Your task to perform on an android device: turn notification dots on Image 0: 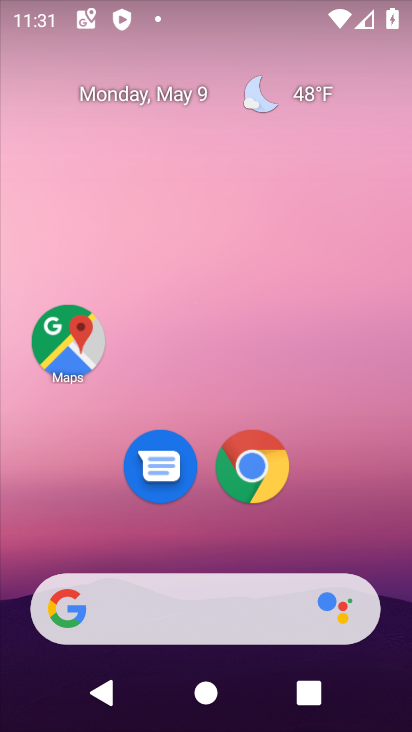
Step 0: drag from (396, 625) to (366, 24)
Your task to perform on an android device: turn notification dots on Image 1: 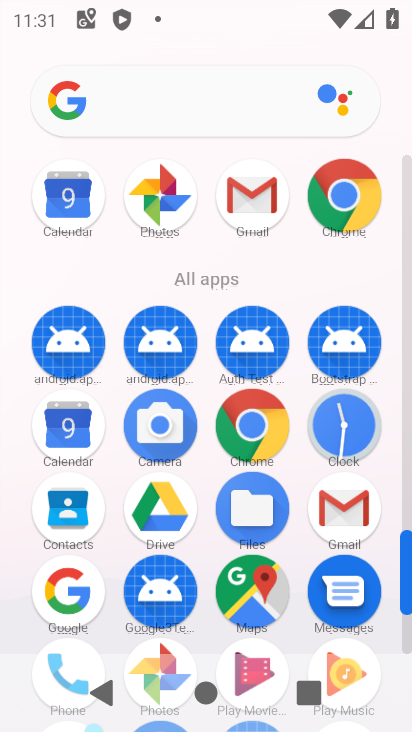
Step 1: click (402, 640)
Your task to perform on an android device: turn notification dots on Image 2: 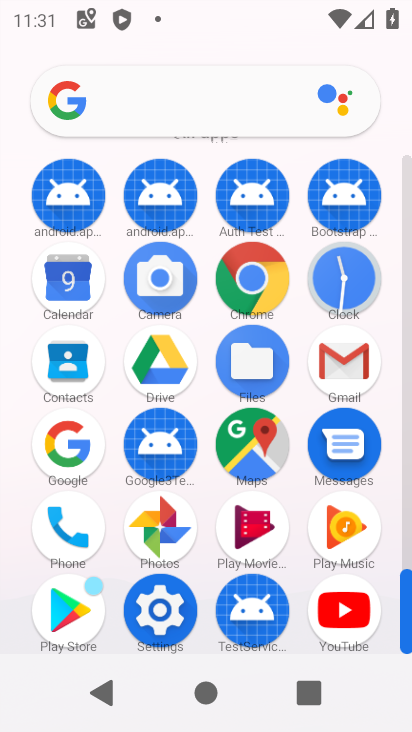
Step 2: click (160, 609)
Your task to perform on an android device: turn notification dots on Image 3: 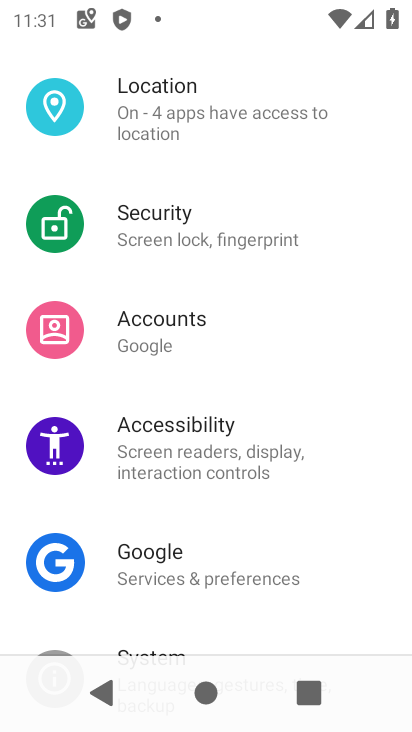
Step 3: drag from (377, 122) to (317, 525)
Your task to perform on an android device: turn notification dots on Image 4: 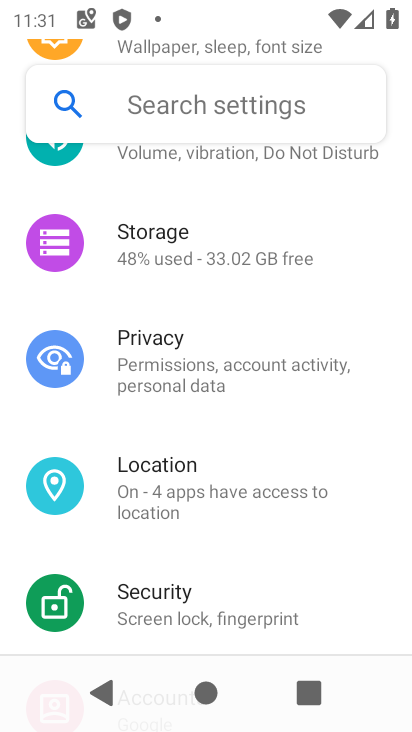
Step 4: drag from (359, 203) to (334, 515)
Your task to perform on an android device: turn notification dots on Image 5: 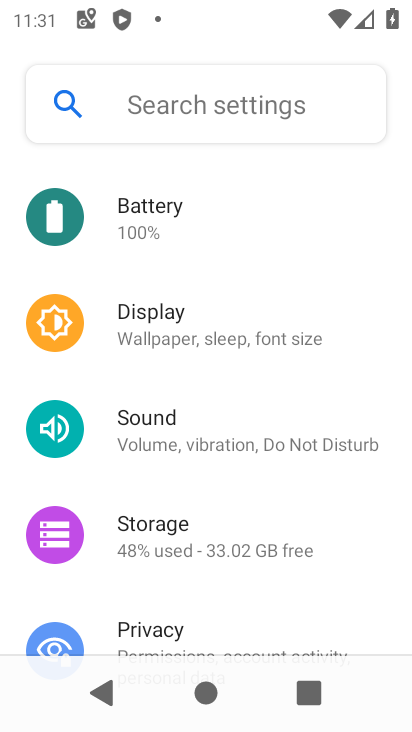
Step 5: drag from (349, 209) to (351, 572)
Your task to perform on an android device: turn notification dots on Image 6: 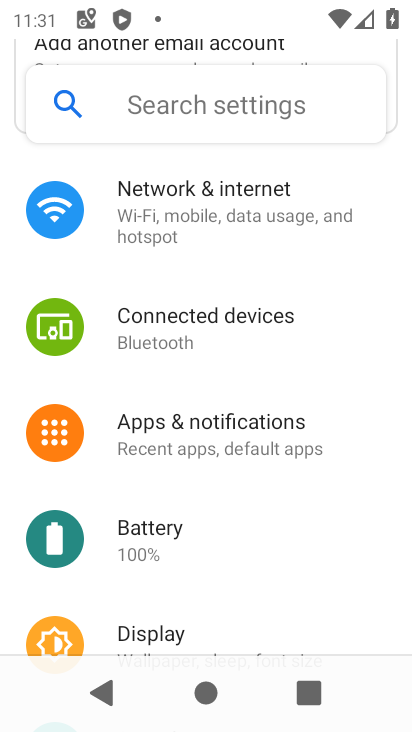
Step 6: click (178, 425)
Your task to perform on an android device: turn notification dots on Image 7: 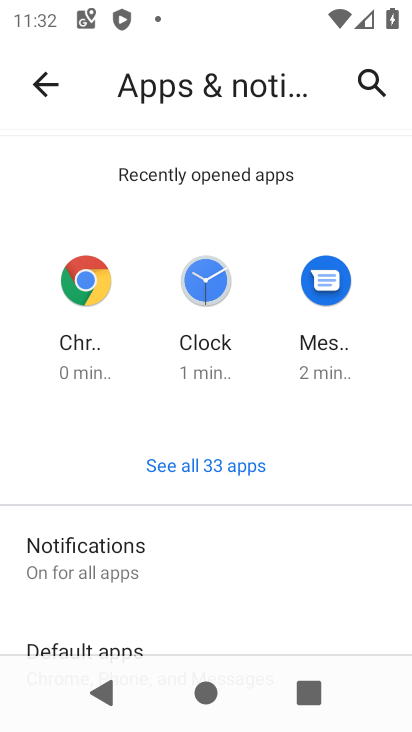
Step 7: drag from (354, 547) to (335, 111)
Your task to perform on an android device: turn notification dots on Image 8: 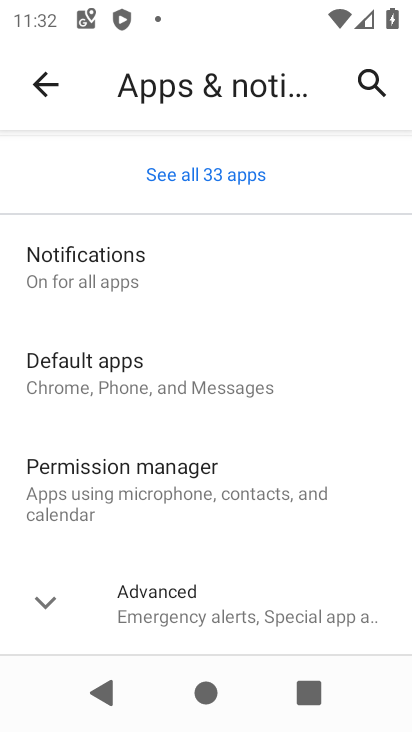
Step 8: click (90, 264)
Your task to perform on an android device: turn notification dots on Image 9: 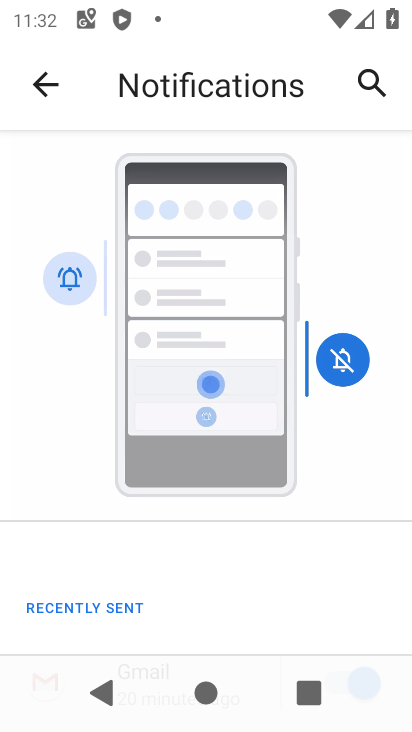
Step 9: drag from (314, 625) to (292, 114)
Your task to perform on an android device: turn notification dots on Image 10: 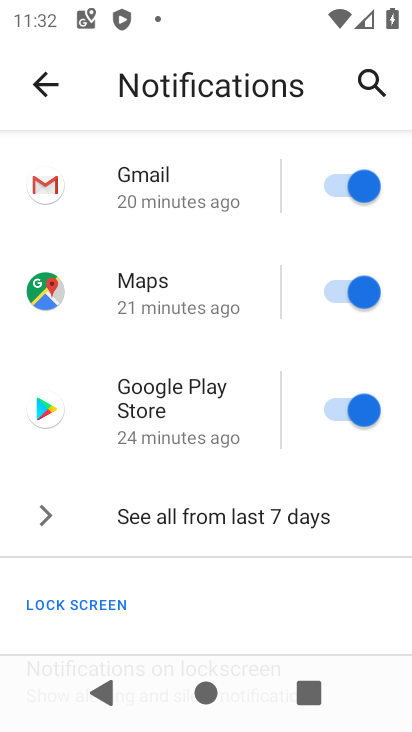
Step 10: drag from (265, 529) to (281, 56)
Your task to perform on an android device: turn notification dots on Image 11: 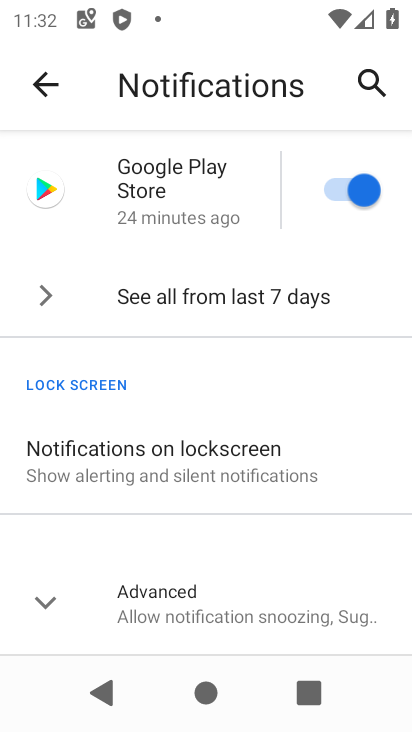
Step 11: click (42, 598)
Your task to perform on an android device: turn notification dots on Image 12: 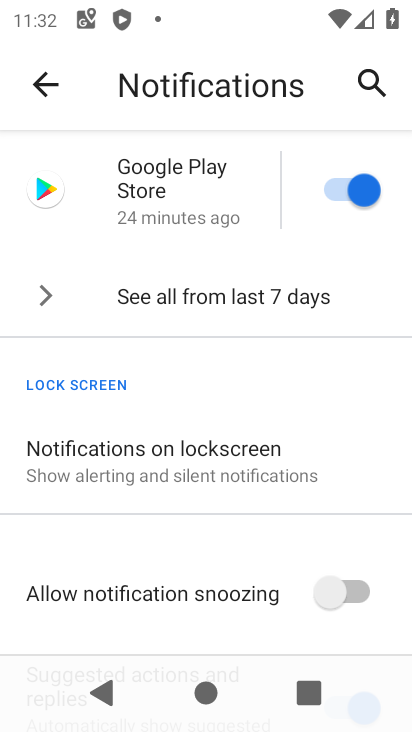
Step 12: task complete